Your task to perform on an android device: Turn off the flashlight Image 0: 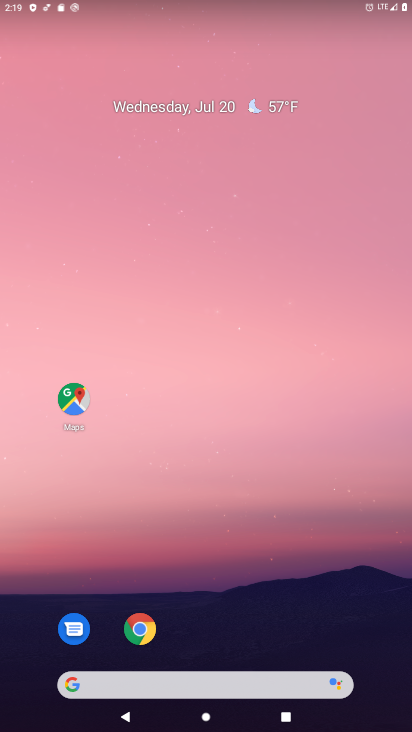
Step 0: drag from (220, 12) to (220, 531)
Your task to perform on an android device: Turn off the flashlight Image 1: 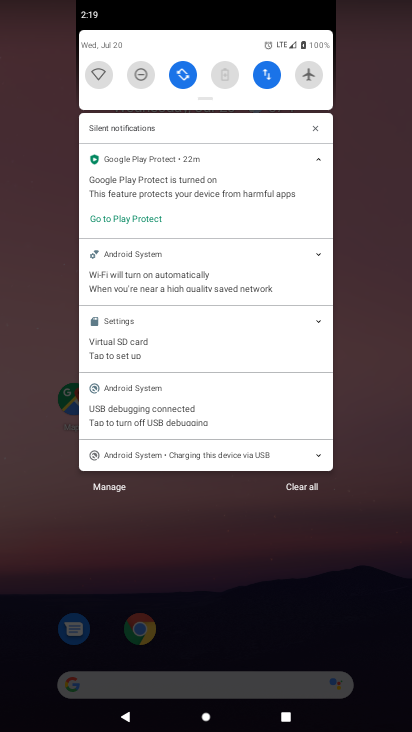
Step 1: drag from (197, 99) to (208, 396)
Your task to perform on an android device: Turn off the flashlight Image 2: 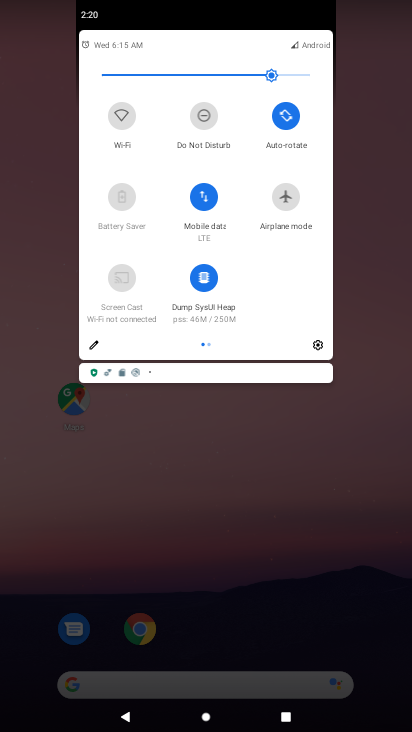
Step 2: click (94, 345)
Your task to perform on an android device: Turn off the flashlight Image 3: 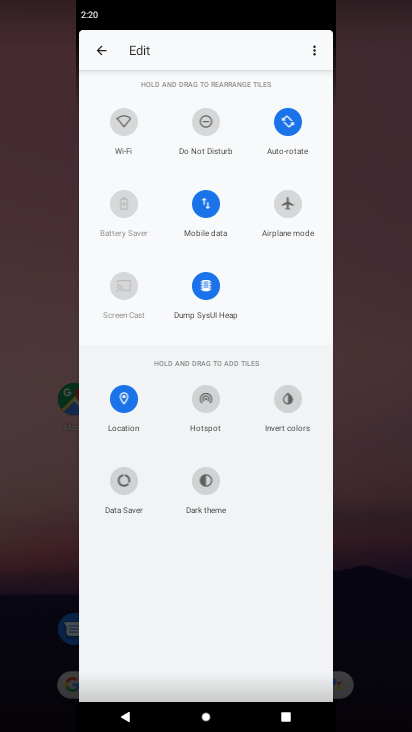
Step 3: task complete